Your task to perform on an android device: toggle notification dots Image 0: 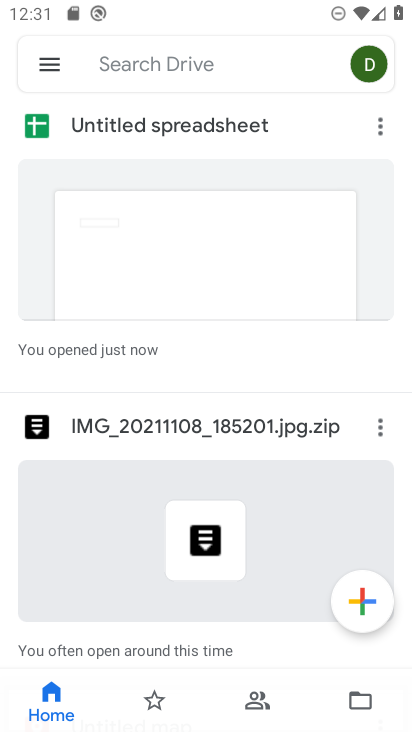
Step 0: press home button
Your task to perform on an android device: toggle notification dots Image 1: 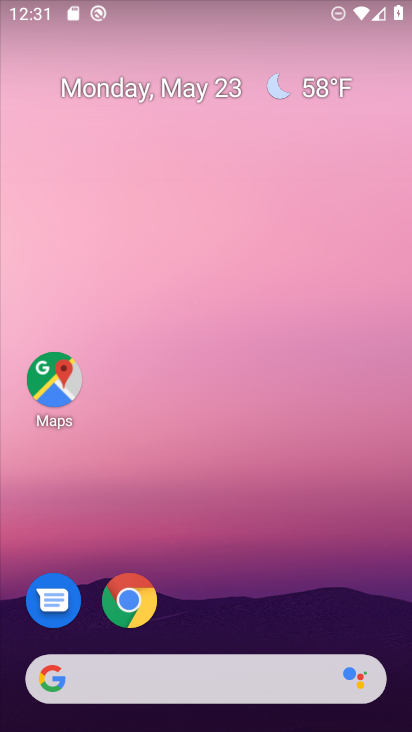
Step 1: drag from (244, 599) to (264, 74)
Your task to perform on an android device: toggle notification dots Image 2: 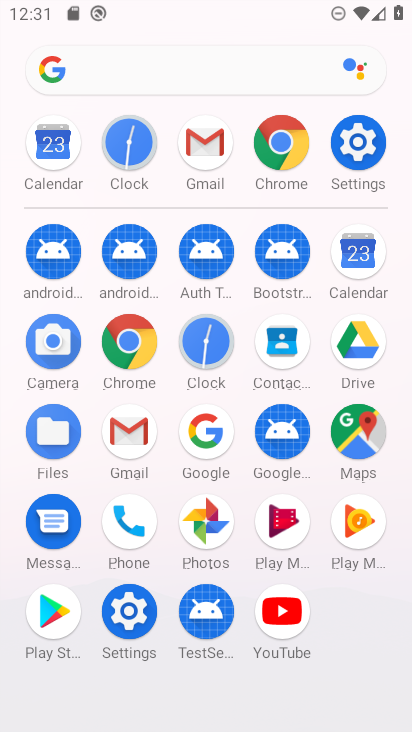
Step 2: click (357, 149)
Your task to perform on an android device: toggle notification dots Image 3: 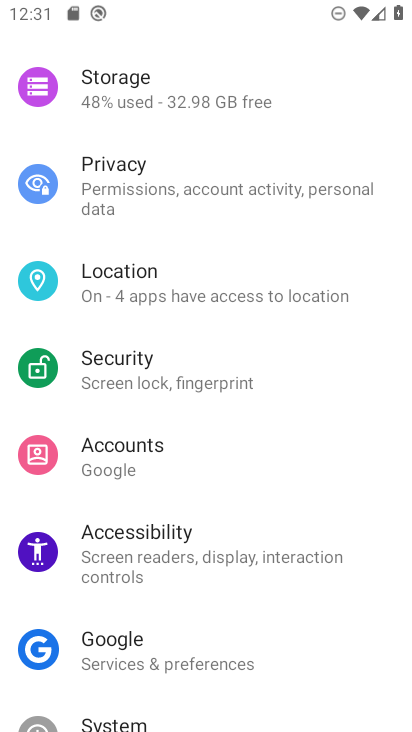
Step 3: drag from (357, 149) to (363, 589)
Your task to perform on an android device: toggle notification dots Image 4: 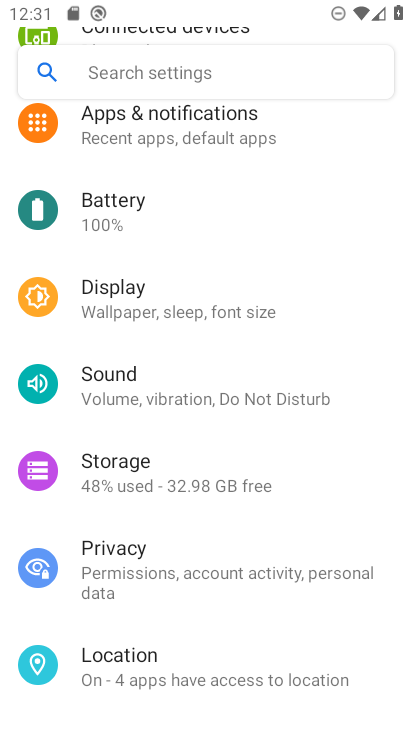
Step 4: click (263, 133)
Your task to perform on an android device: toggle notification dots Image 5: 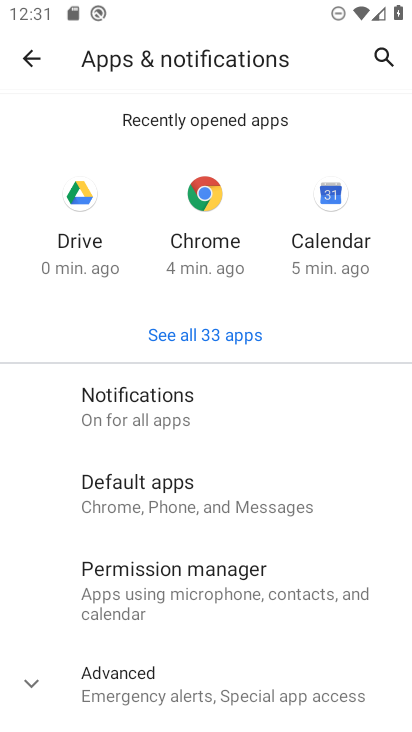
Step 5: click (140, 417)
Your task to perform on an android device: toggle notification dots Image 6: 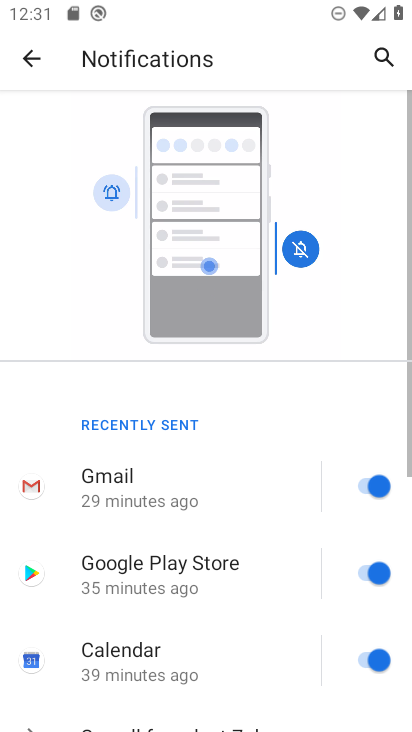
Step 6: drag from (212, 591) to (243, 113)
Your task to perform on an android device: toggle notification dots Image 7: 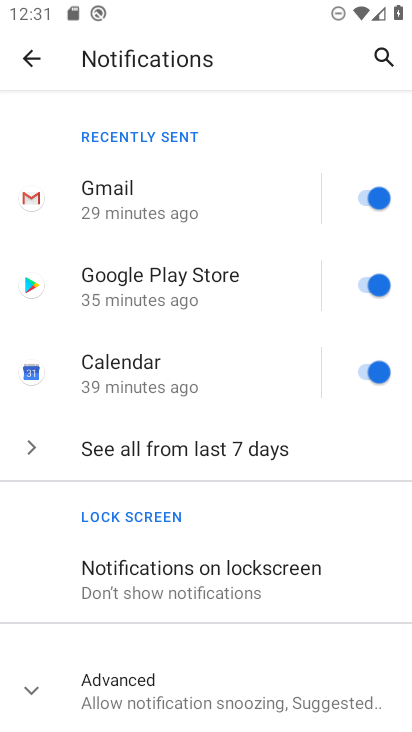
Step 7: click (218, 143)
Your task to perform on an android device: toggle notification dots Image 8: 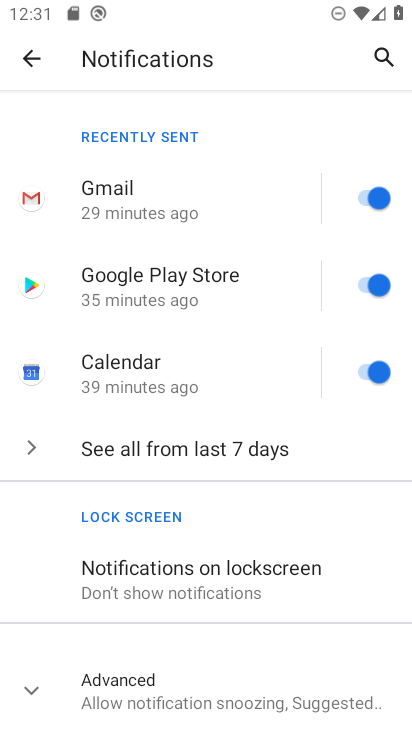
Step 8: drag from (203, 588) to (178, 106)
Your task to perform on an android device: toggle notification dots Image 9: 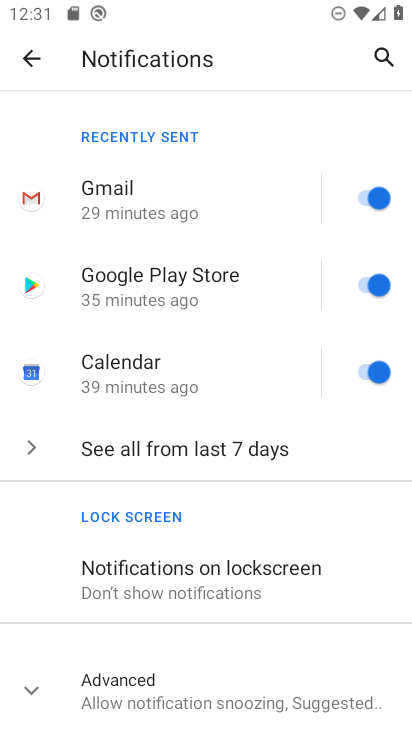
Step 9: click (157, 692)
Your task to perform on an android device: toggle notification dots Image 10: 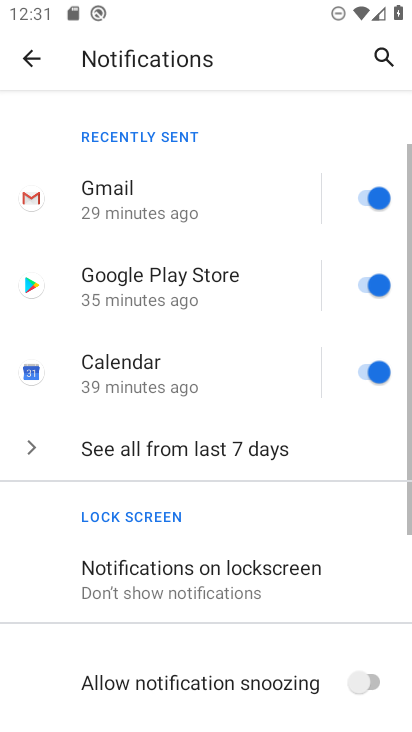
Step 10: drag from (155, 685) to (117, 208)
Your task to perform on an android device: toggle notification dots Image 11: 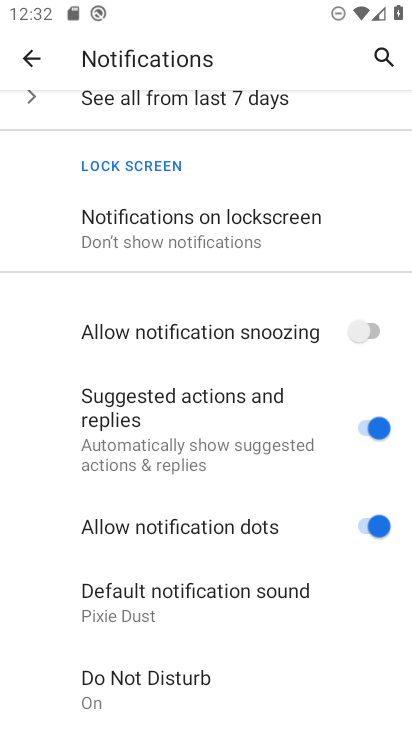
Step 11: click (383, 521)
Your task to perform on an android device: toggle notification dots Image 12: 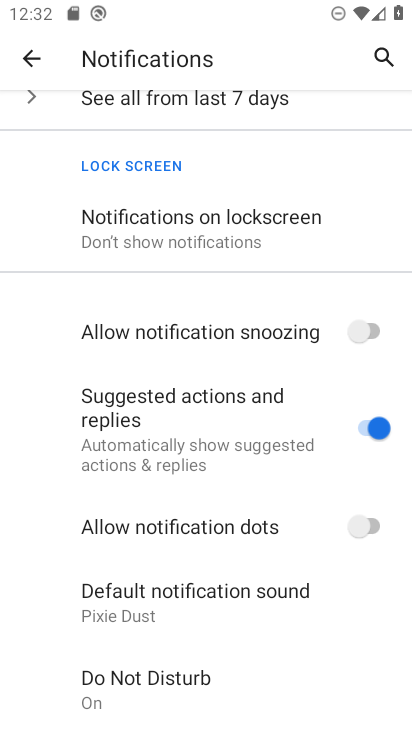
Step 12: task complete